Your task to perform on an android device: clear all cookies in the chrome app Image 0: 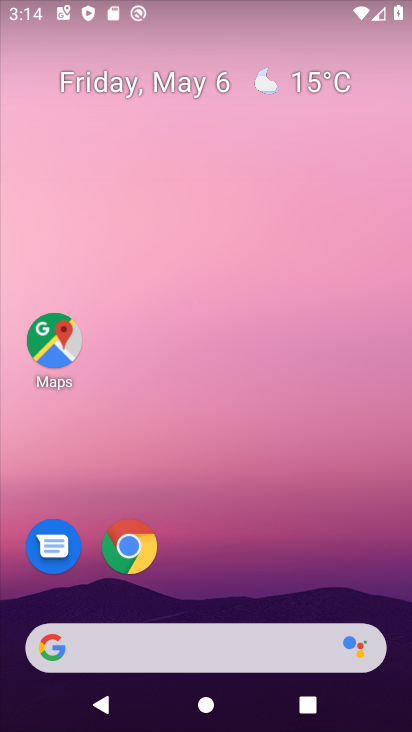
Step 0: click (122, 553)
Your task to perform on an android device: clear all cookies in the chrome app Image 1: 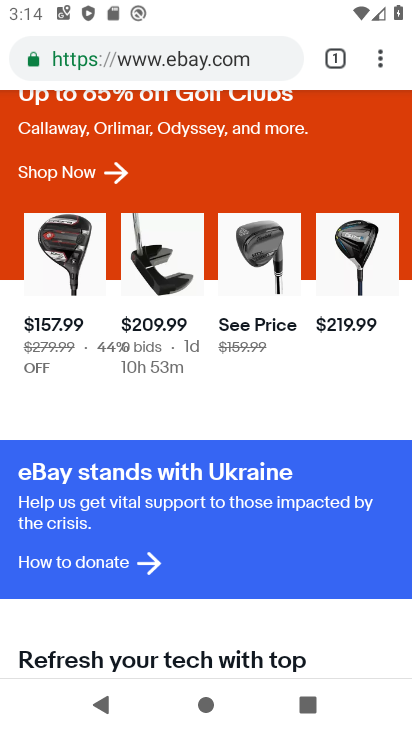
Step 1: click (383, 63)
Your task to perform on an android device: clear all cookies in the chrome app Image 2: 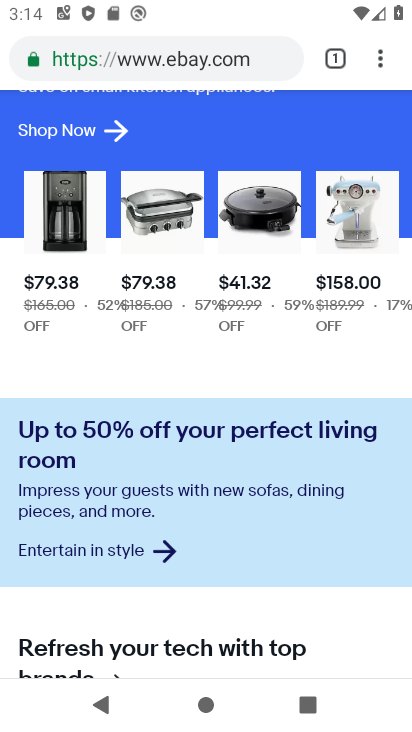
Step 2: click (380, 60)
Your task to perform on an android device: clear all cookies in the chrome app Image 3: 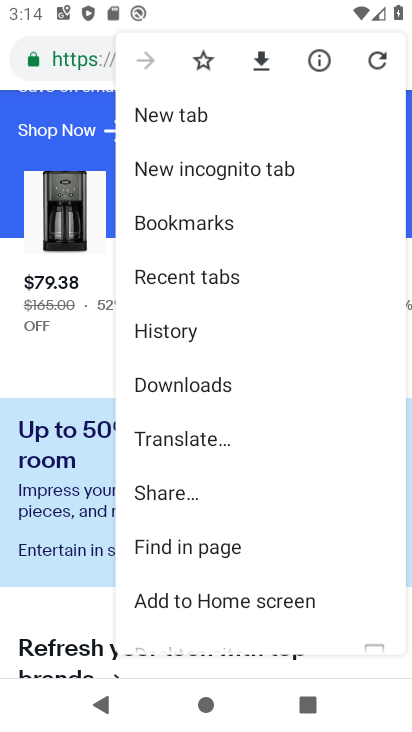
Step 3: drag from (230, 596) to (228, 355)
Your task to perform on an android device: clear all cookies in the chrome app Image 4: 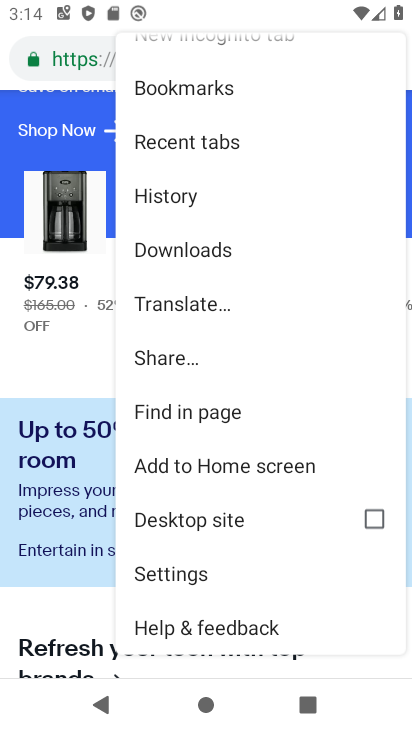
Step 4: click (164, 566)
Your task to perform on an android device: clear all cookies in the chrome app Image 5: 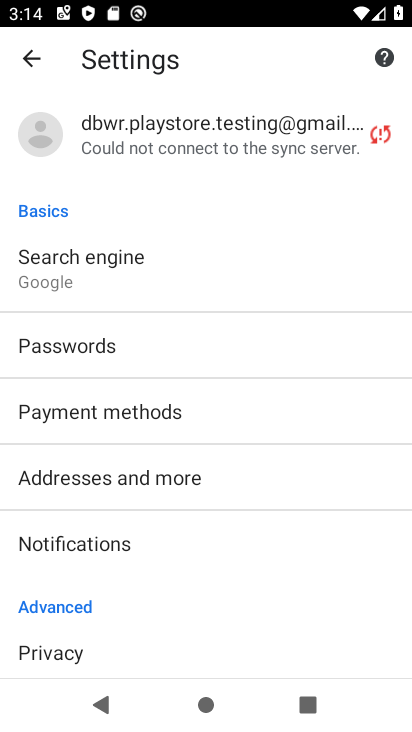
Step 5: drag from (142, 646) to (181, 323)
Your task to perform on an android device: clear all cookies in the chrome app Image 6: 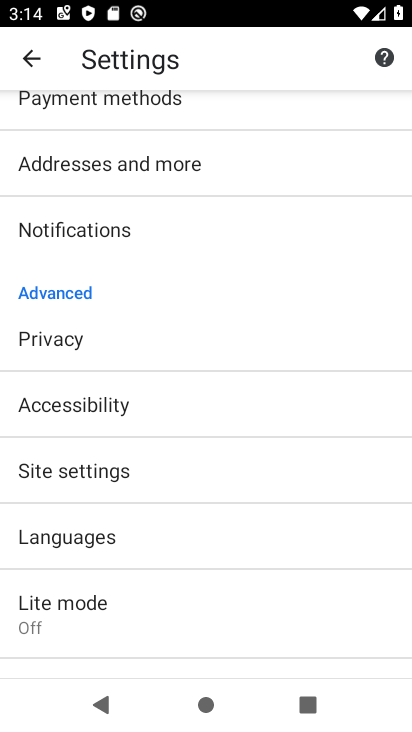
Step 6: click (55, 346)
Your task to perform on an android device: clear all cookies in the chrome app Image 7: 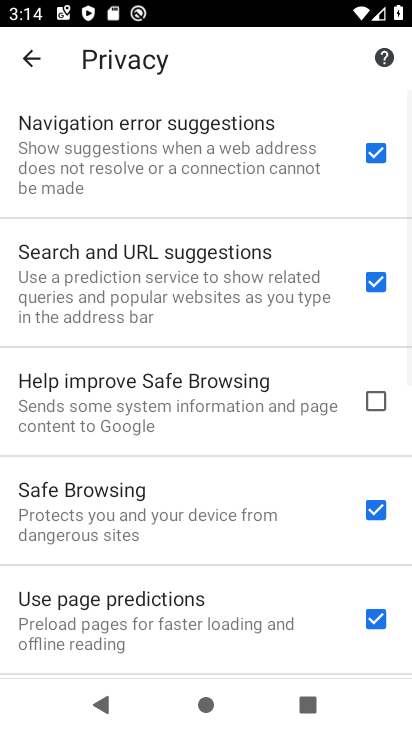
Step 7: drag from (182, 635) to (221, 279)
Your task to perform on an android device: clear all cookies in the chrome app Image 8: 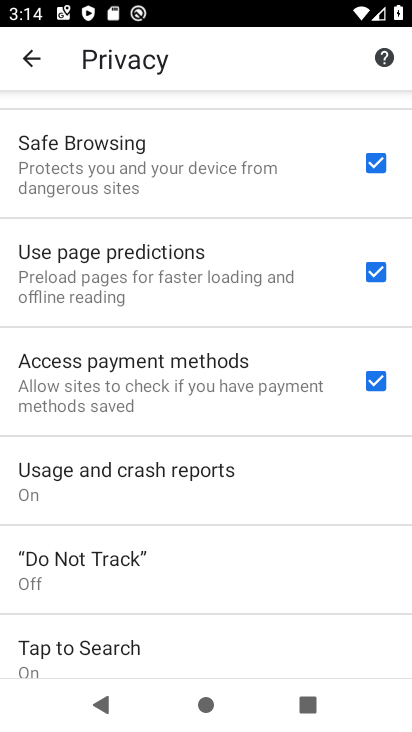
Step 8: drag from (214, 663) to (243, 301)
Your task to perform on an android device: clear all cookies in the chrome app Image 9: 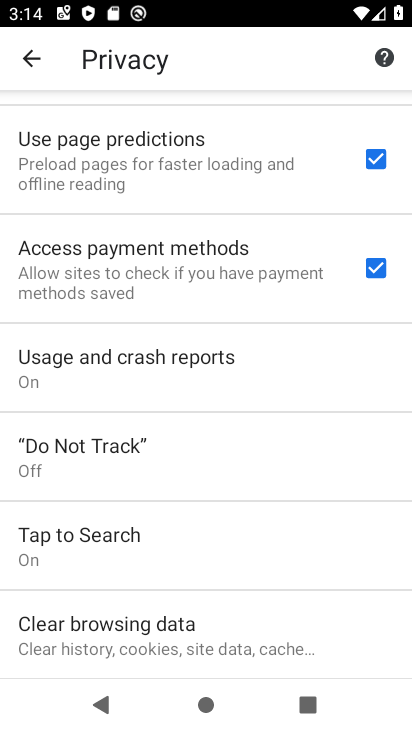
Step 9: drag from (138, 601) to (184, 333)
Your task to perform on an android device: clear all cookies in the chrome app Image 10: 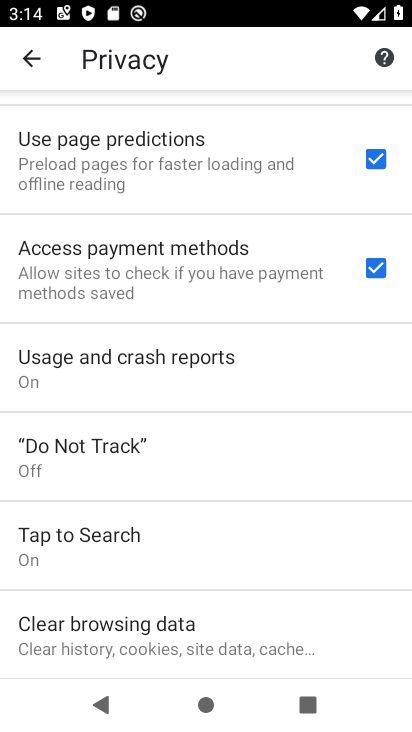
Step 10: click (175, 639)
Your task to perform on an android device: clear all cookies in the chrome app Image 11: 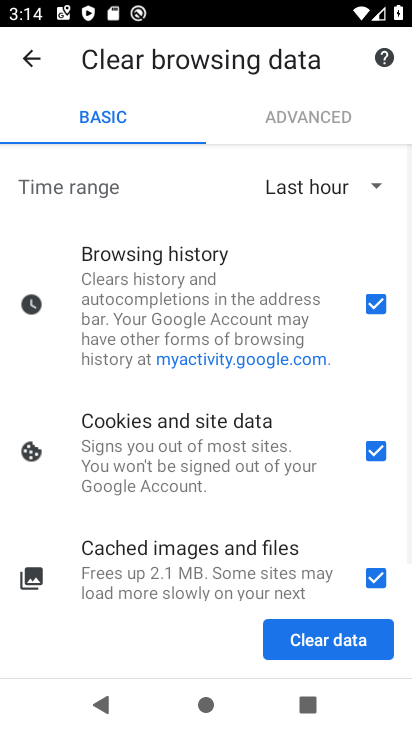
Step 11: click (378, 575)
Your task to perform on an android device: clear all cookies in the chrome app Image 12: 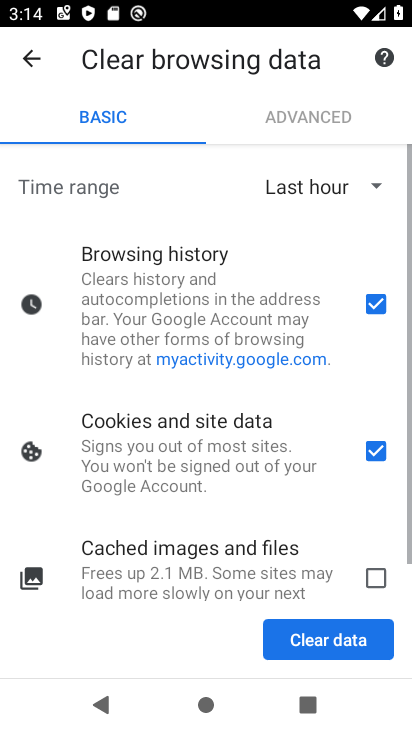
Step 12: click (366, 305)
Your task to perform on an android device: clear all cookies in the chrome app Image 13: 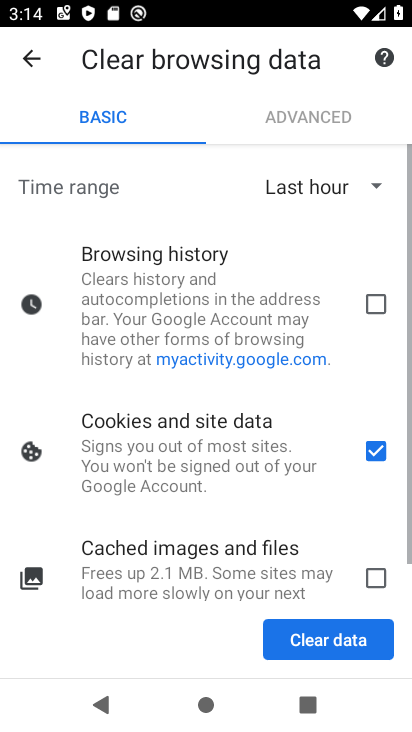
Step 13: click (295, 646)
Your task to perform on an android device: clear all cookies in the chrome app Image 14: 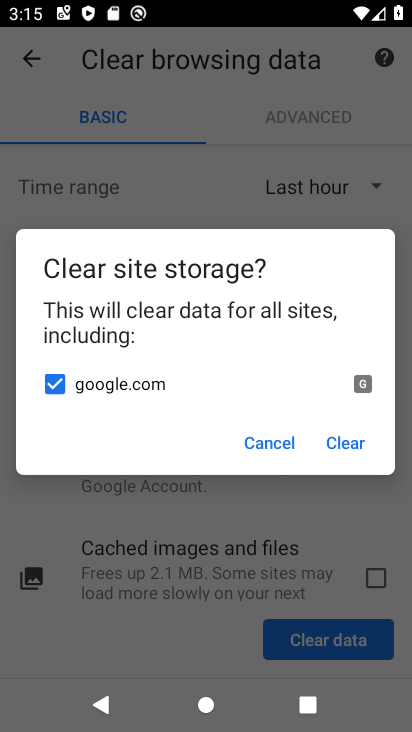
Step 14: click (355, 446)
Your task to perform on an android device: clear all cookies in the chrome app Image 15: 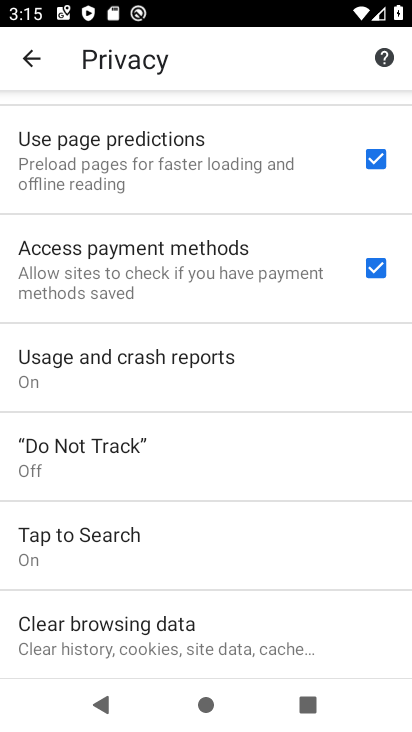
Step 15: task complete